Your task to perform on an android device: set the timer Image 0: 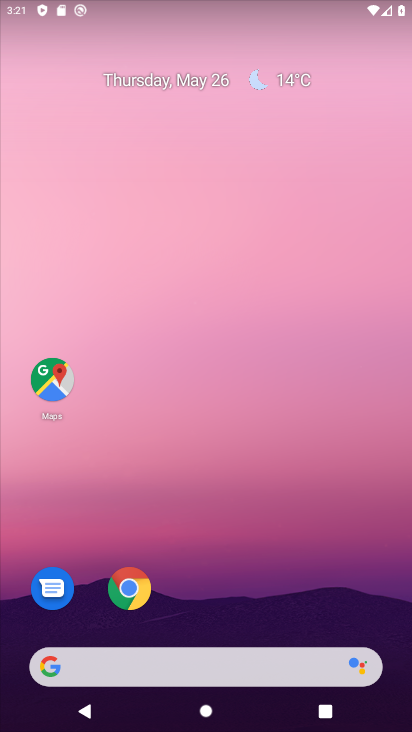
Step 0: drag from (312, 614) to (304, 77)
Your task to perform on an android device: set the timer Image 1: 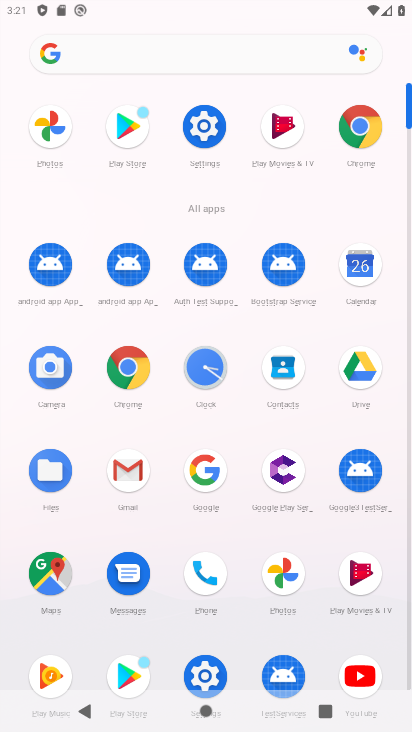
Step 1: click (209, 363)
Your task to perform on an android device: set the timer Image 2: 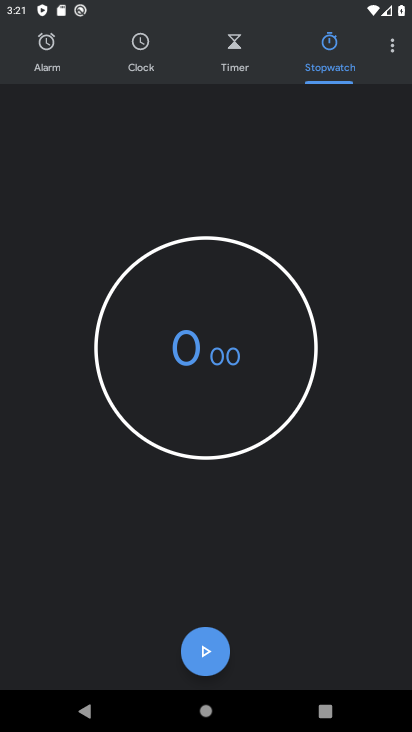
Step 2: click (240, 38)
Your task to perform on an android device: set the timer Image 3: 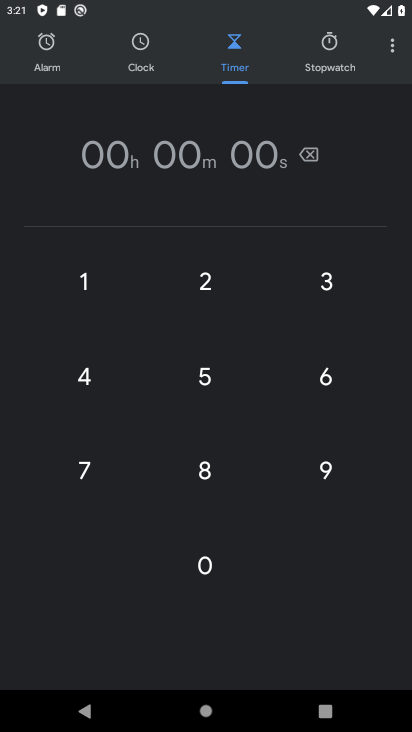
Step 3: task complete